Your task to perform on an android device: uninstall "Truecaller" Image 0: 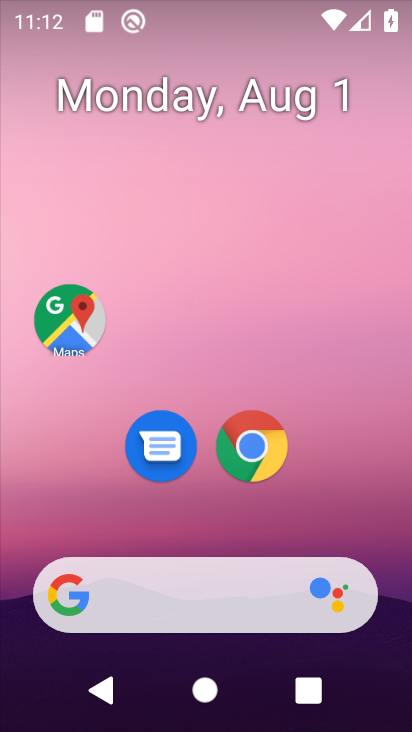
Step 0: drag from (213, 525) to (258, 97)
Your task to perform on an android device: uninstall "Truecaller" Image 1: 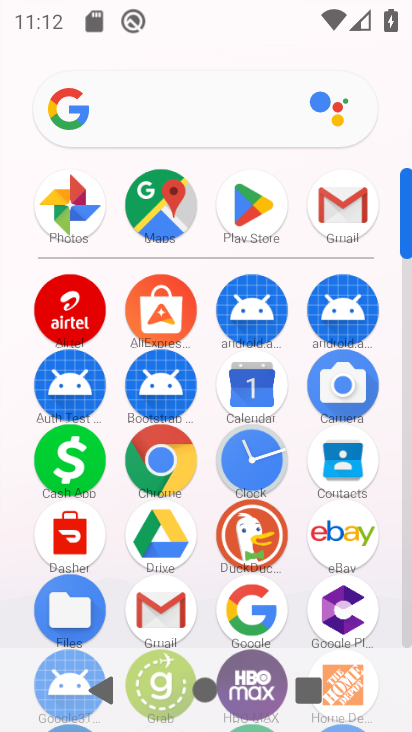
Step 1: click (262, 202)
Your task to perform on an android device: uninstall "Truecaller" Image 2: 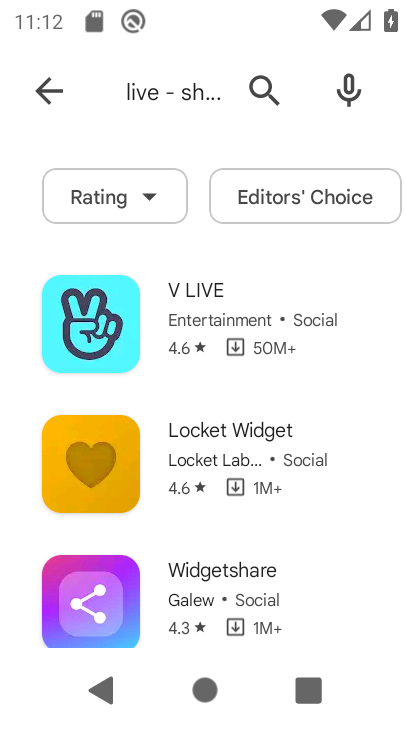
Step 2: click (244, 86)
Your task to perform on an android device: uninstall "Truecaller" Image 3: 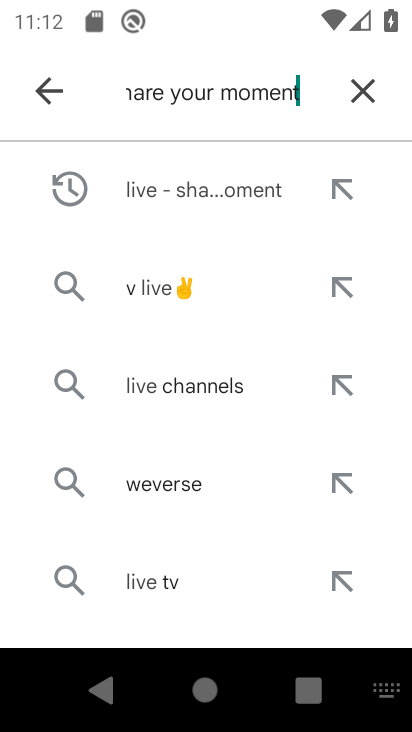
Step 3: click (358, 83)
Your task to perform on an android device: uninstall "Truecaller" Image 4: 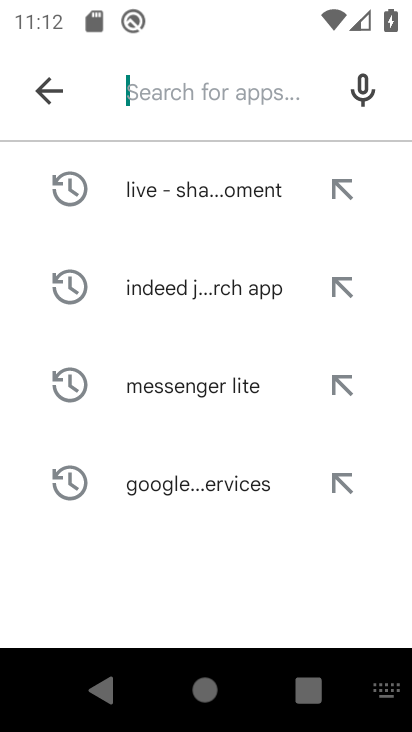
Step 4: type "Truecalle"
Your task to perform on an android device: uninstall "Truecaller" Image 5: 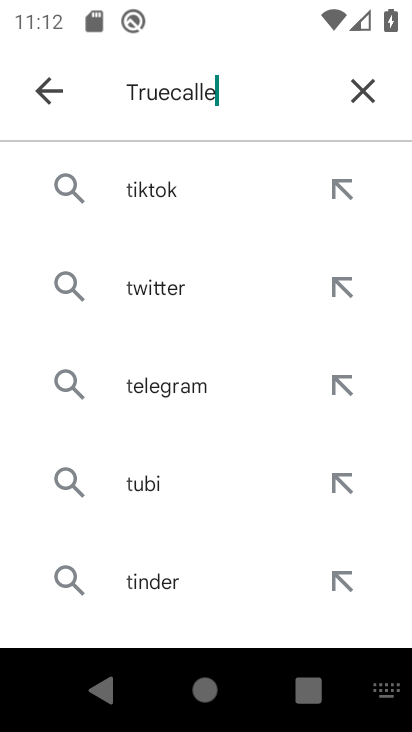
Step 5: type ""
Your task to perform on an android device: uninstall "Truecaller" Image 6: 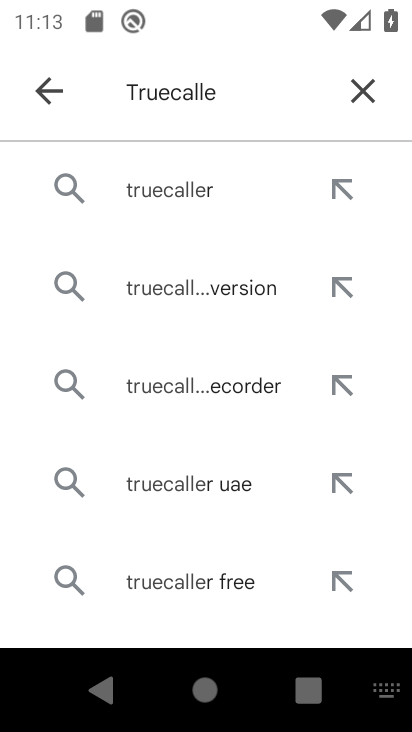
Step 6: click (172, 176)
Your task to perform on an android device: uninstall "Truecaller" Image 7: 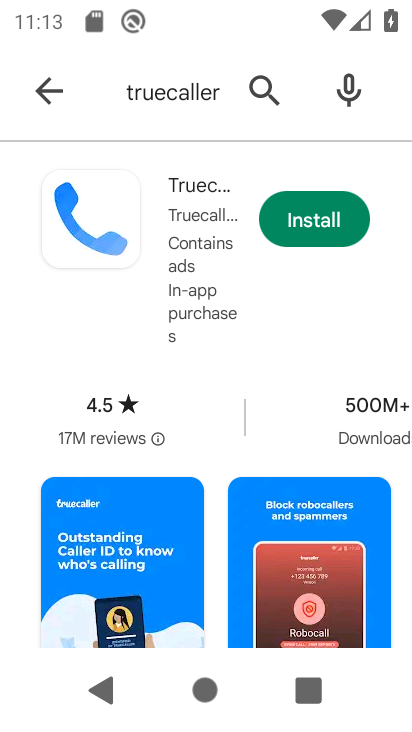
Step 7: task complete